Your task to perform on an android device: turn off sleep mode Image 0: 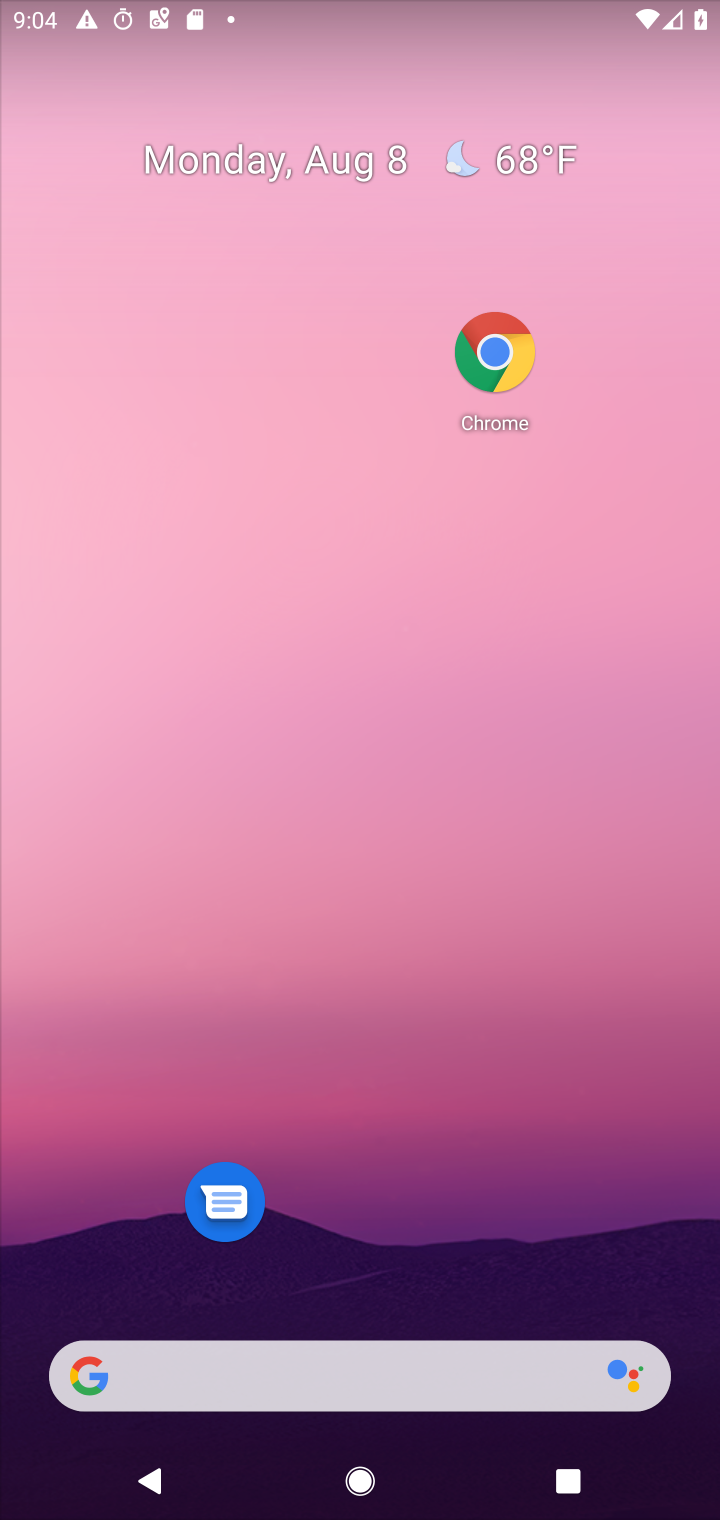
Step 0: drag from (330, 1255) to (459, 508)
Your task to perform on an android device: turn off sleep mode Image 1: 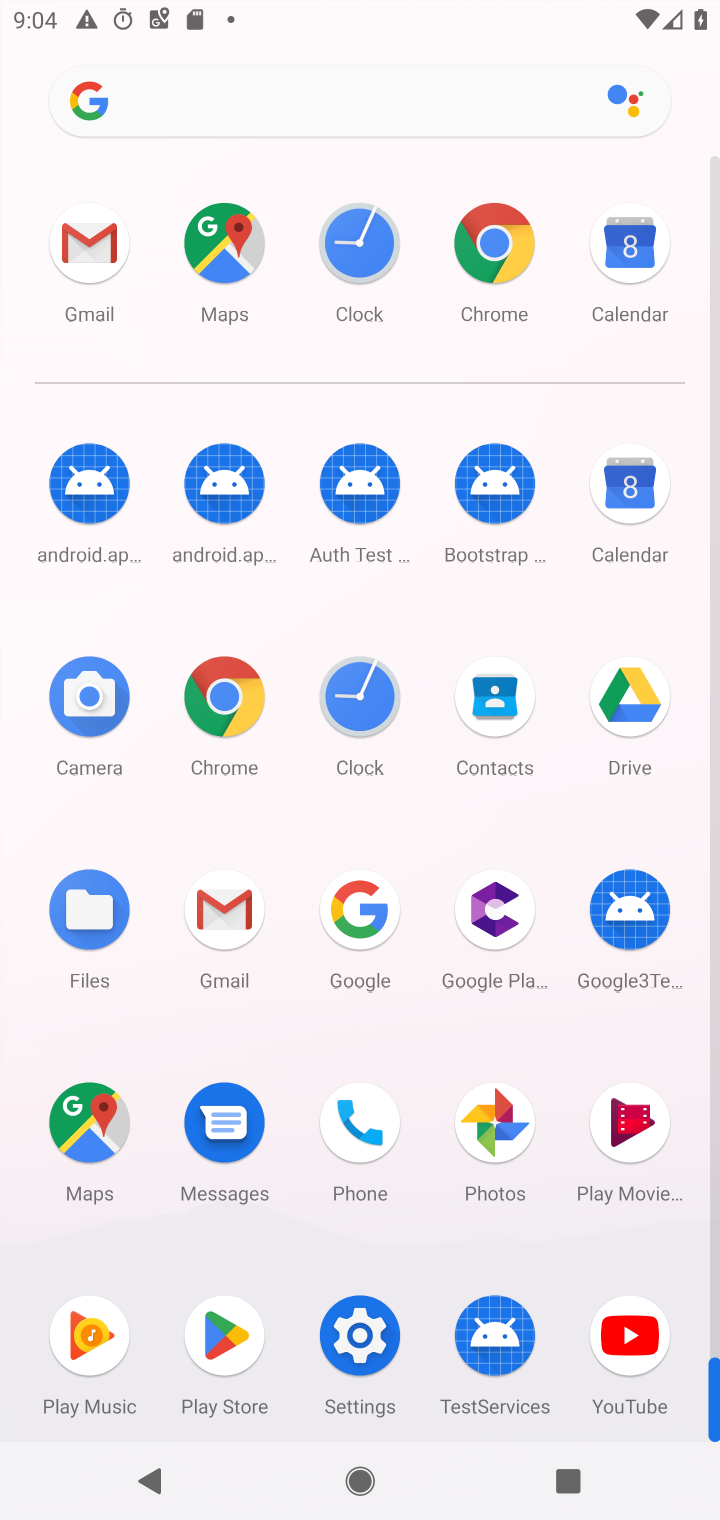
Step 1: drag from (334, 1150) to (327, 346)
Your task to perform on an android device: turn off sleep mode Image 2: 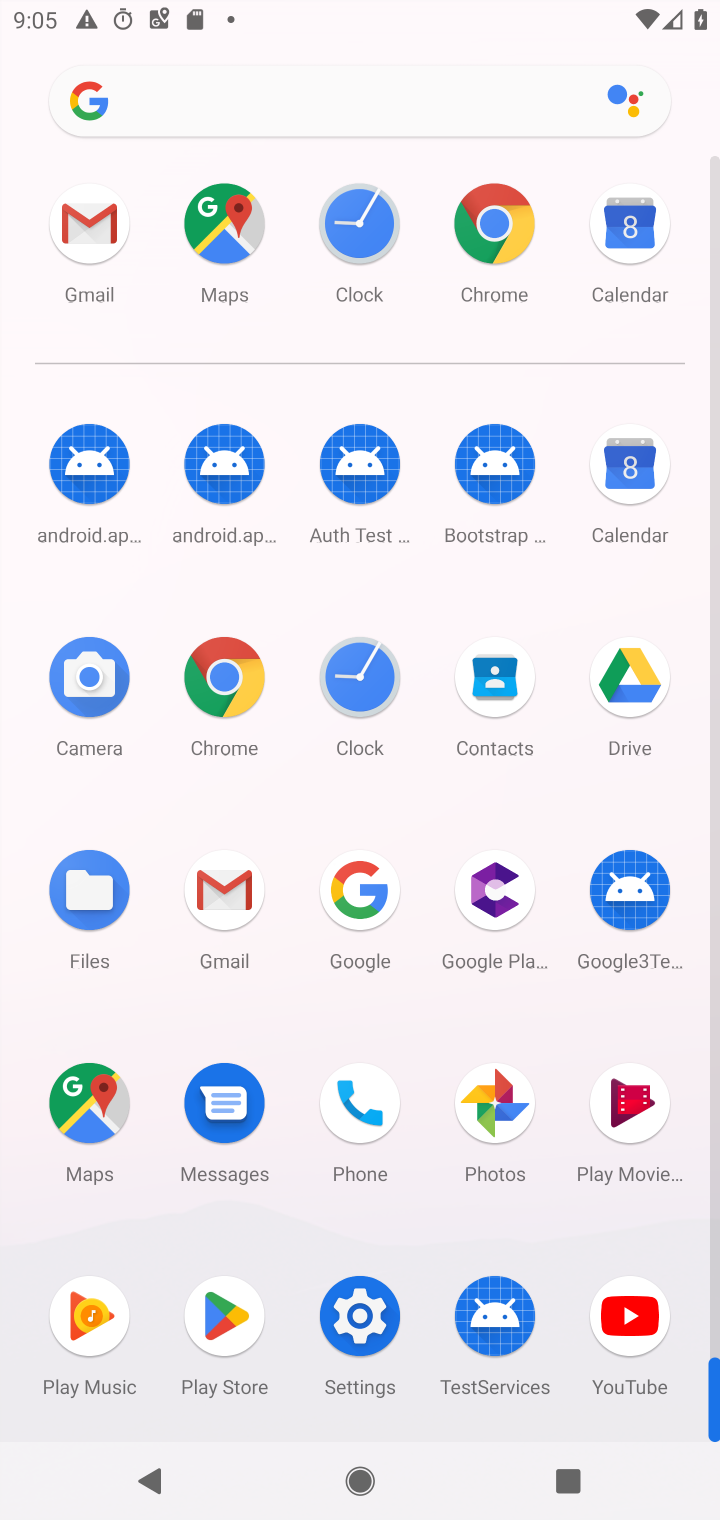
Step 2: click (340, 1339)
Your task to perform on an android device: turn off sleep mode Image 3: 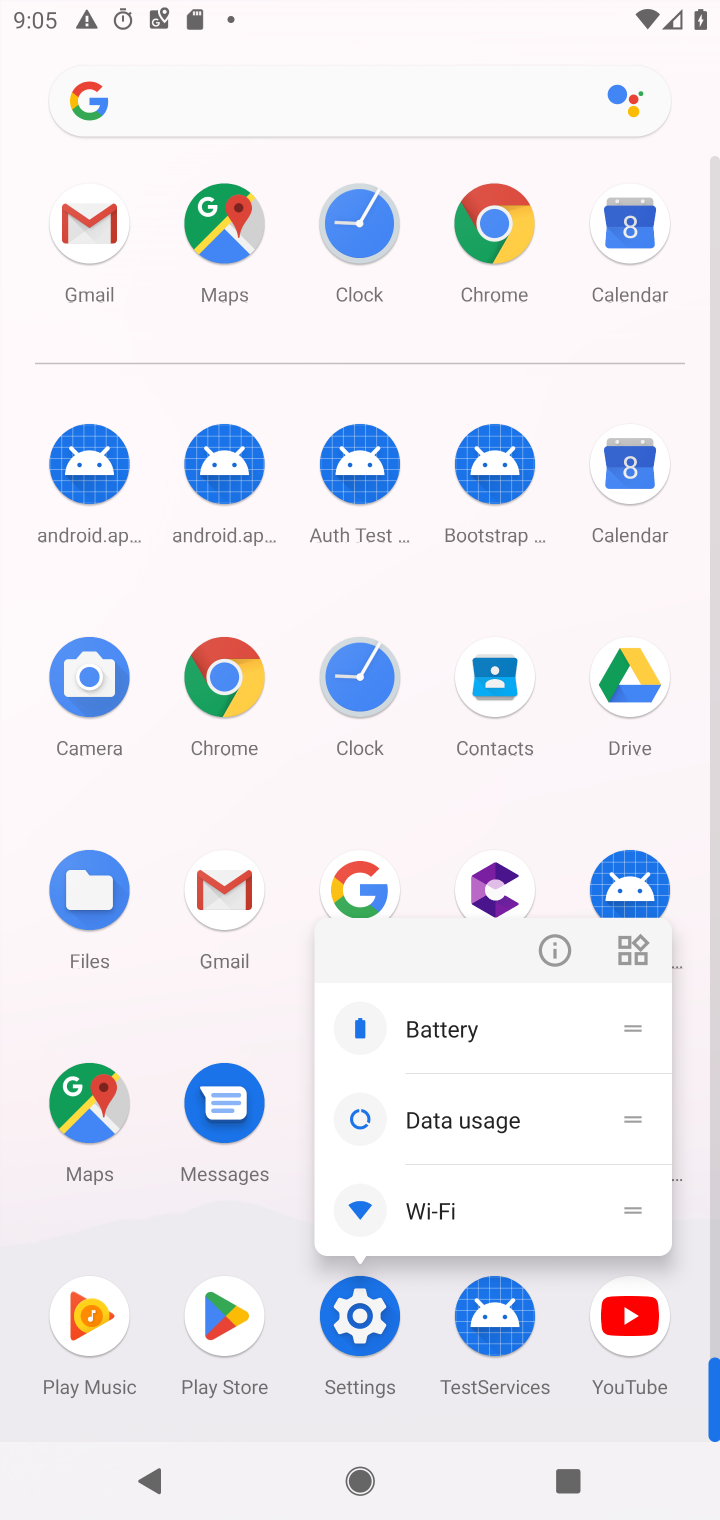
Step 3: click (337, 1325)
Your task to perform on an android device: turn off sleep mode Image 4: 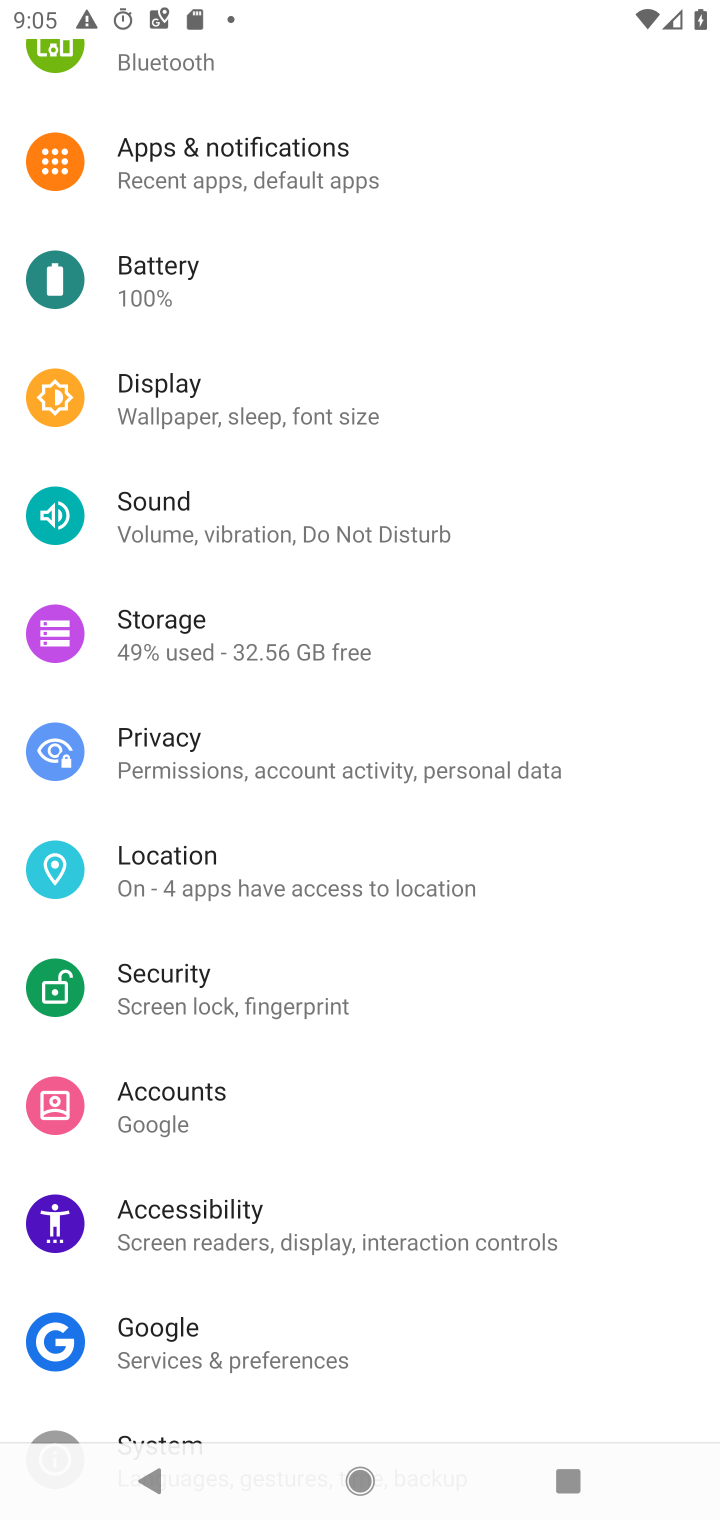
Step 4: click (216, 409)
Your task to perform on an android device: turn off sleep mode Image 5: 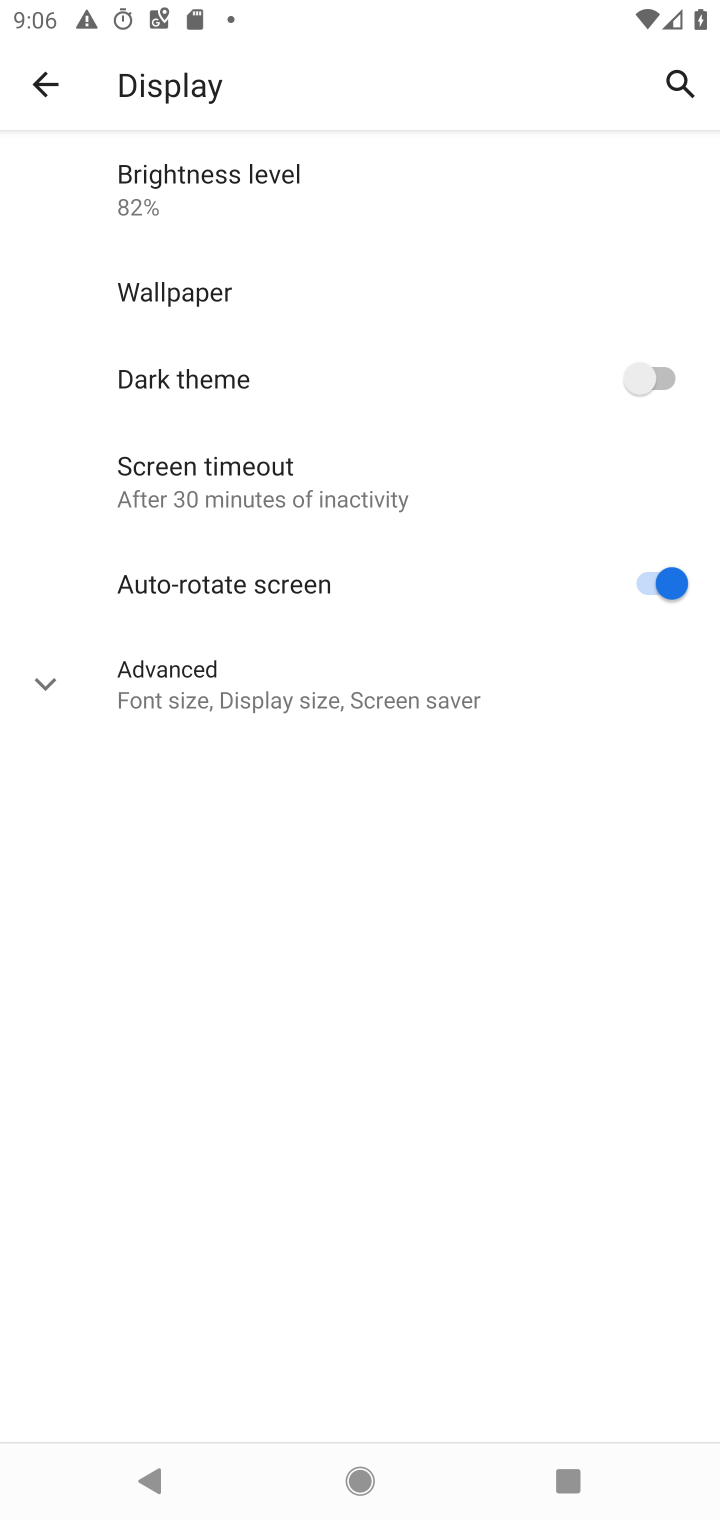
Step 5: click (169, 657)
Your task to perform on an android device: turn off sleep mode Image 6: 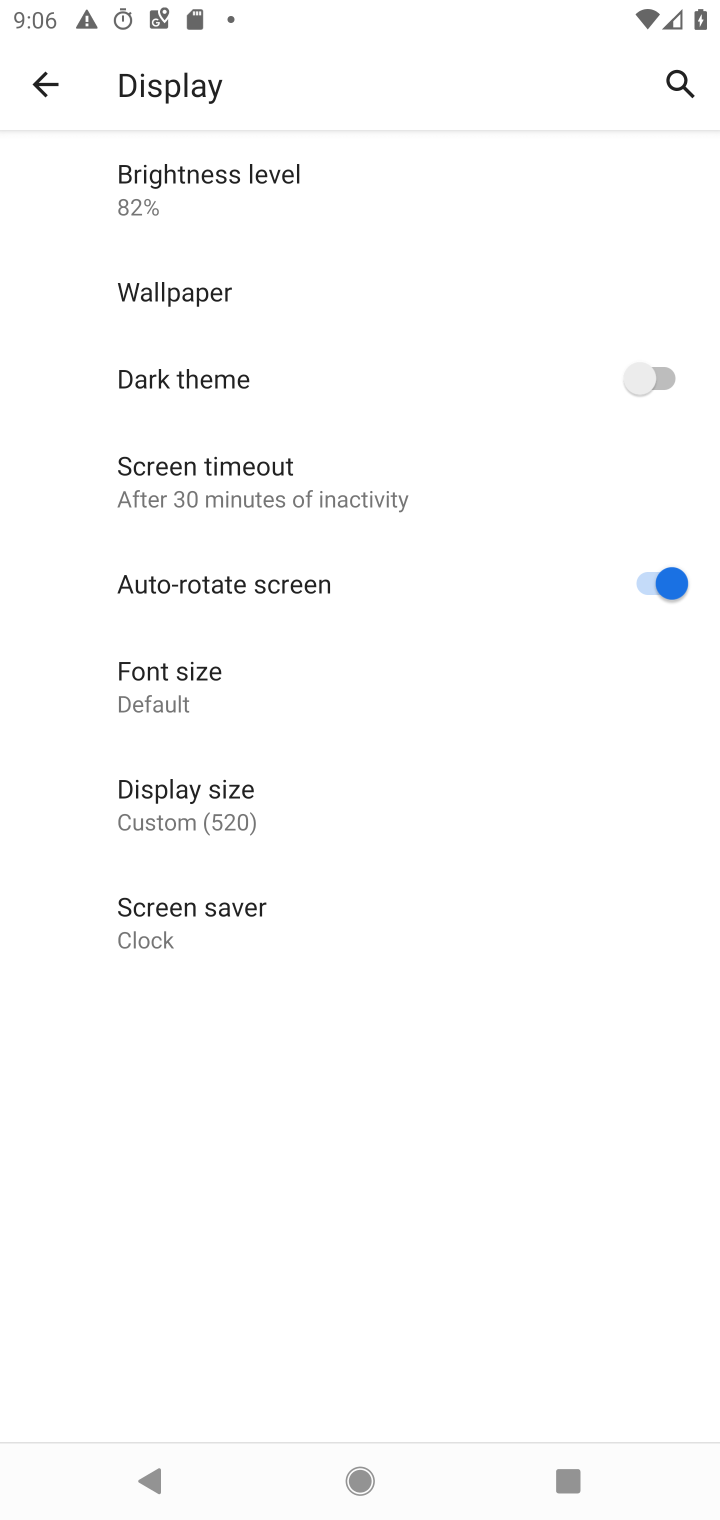
Step 6: task complete